Your task to perform on an android device: delete a single message in the gmail app Image 0: 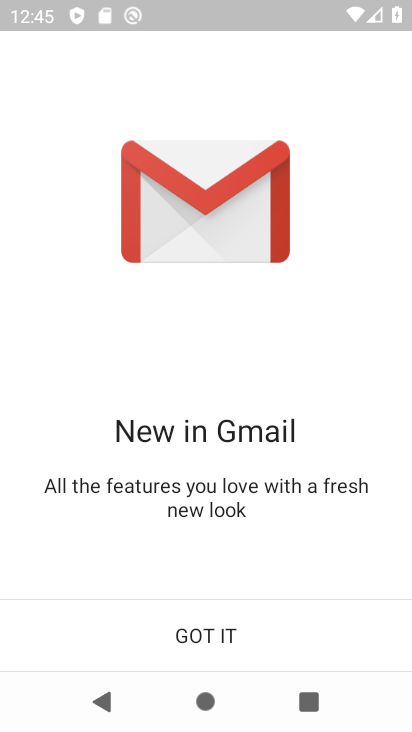
Step 0: click (233, 626)
Your task to perform on an android device: delete a single message in the gmail app Image 1: 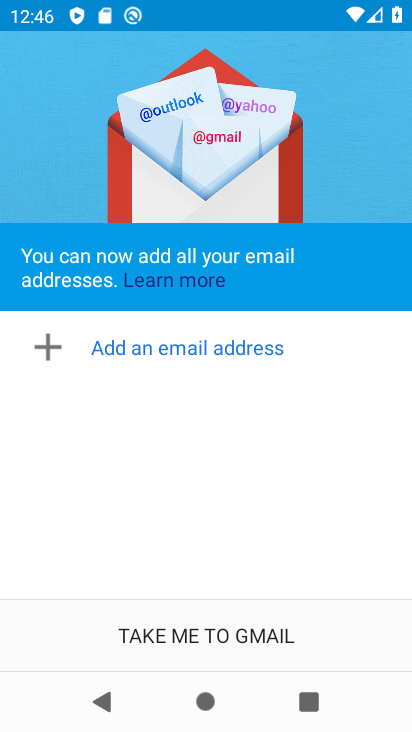
Step 1: click (233, 628)
Your task to perform on an android device: delete a single message in the gmail app Image 2: 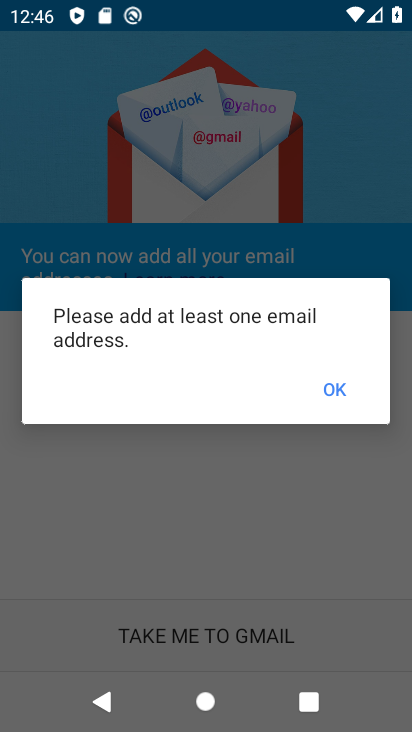
Step 2: task complete